Your task to perform on an android device: turn off notifications settings in the gmail app Image 0: 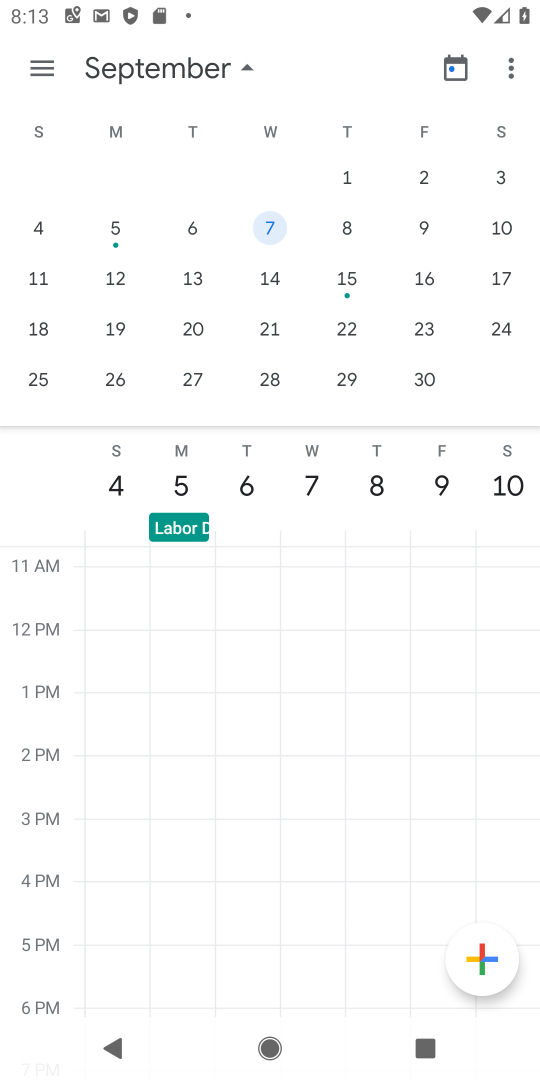
Step 0: press home button
Your task to perform on an android device: turn off notifications settings in the gmail app Image 1: 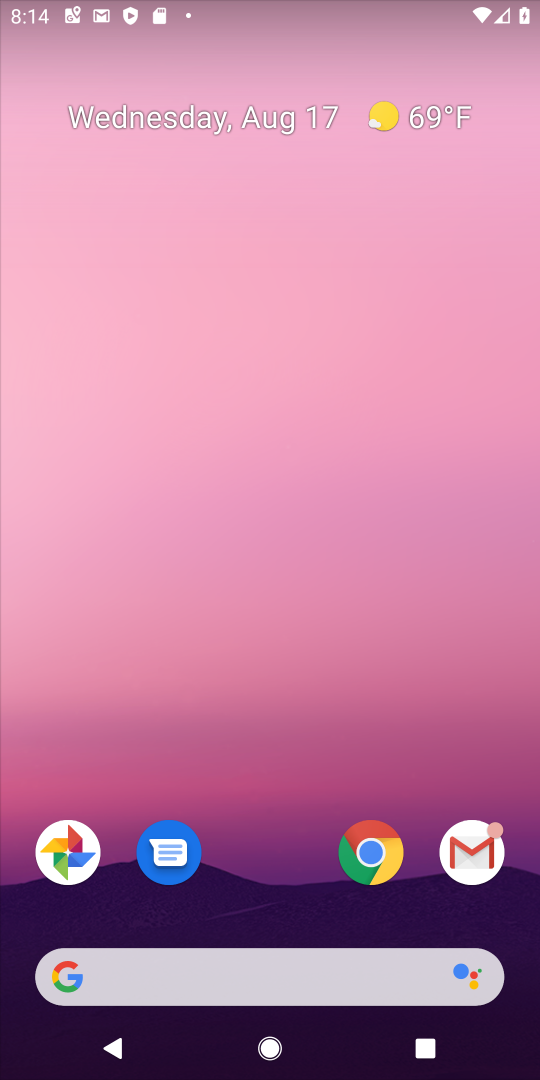
Step 1: click (468, 850)
Your task to perform on an android device: turn off notifications settings in the gmail app Image 2: 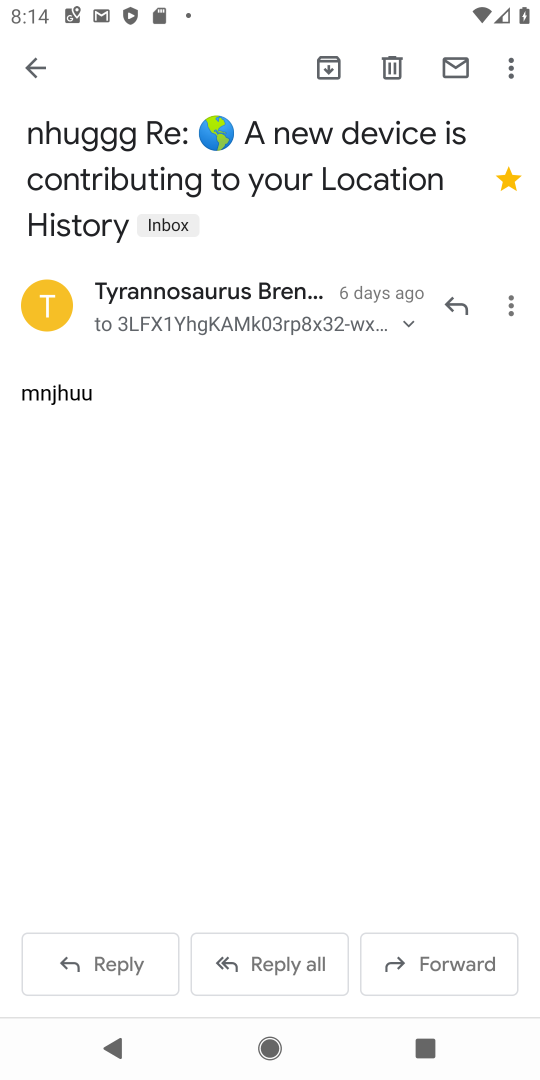
Step 2: click (35, 67)
Your task to perform on an android device: turn off notifications settings in the gmail app Image 3: 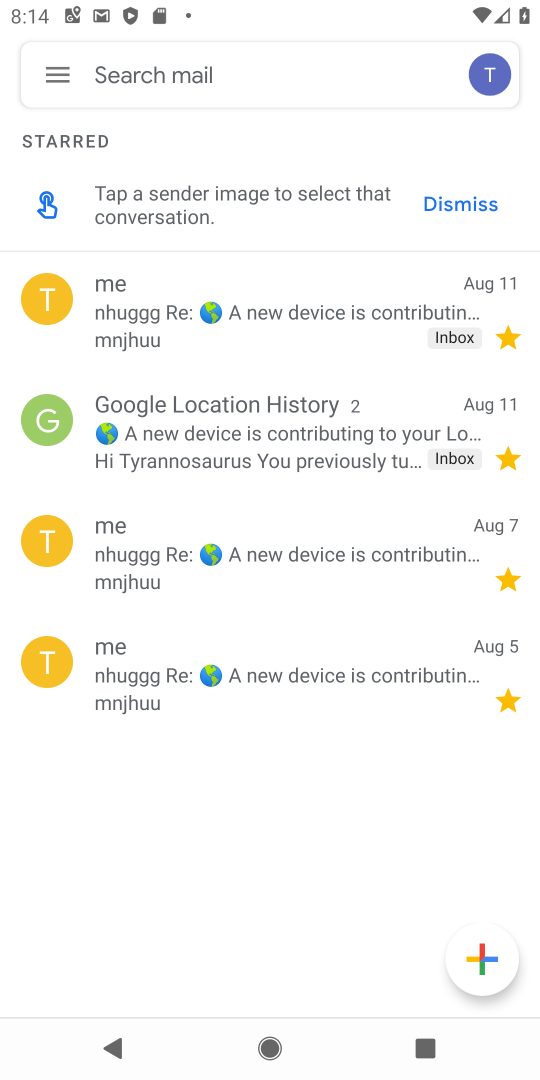
Step 3: click (53, 67)
Your task to perform on an android device: turn off notifications settings in the gmail app Image 4: 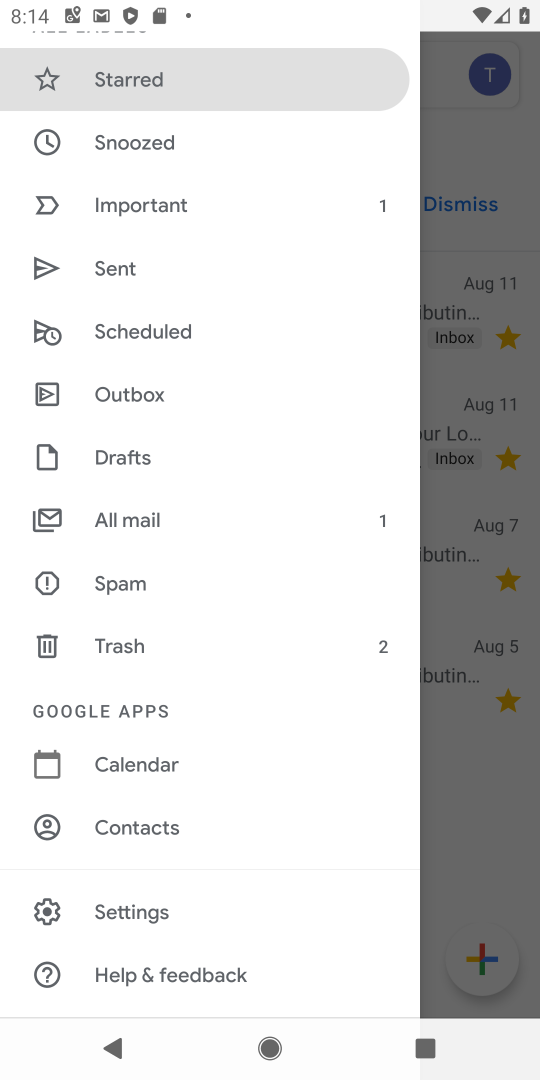
Step 4: click (128, 902)
Your task to perform on an android device: turn off notifications settings in the gmail app Image 5: 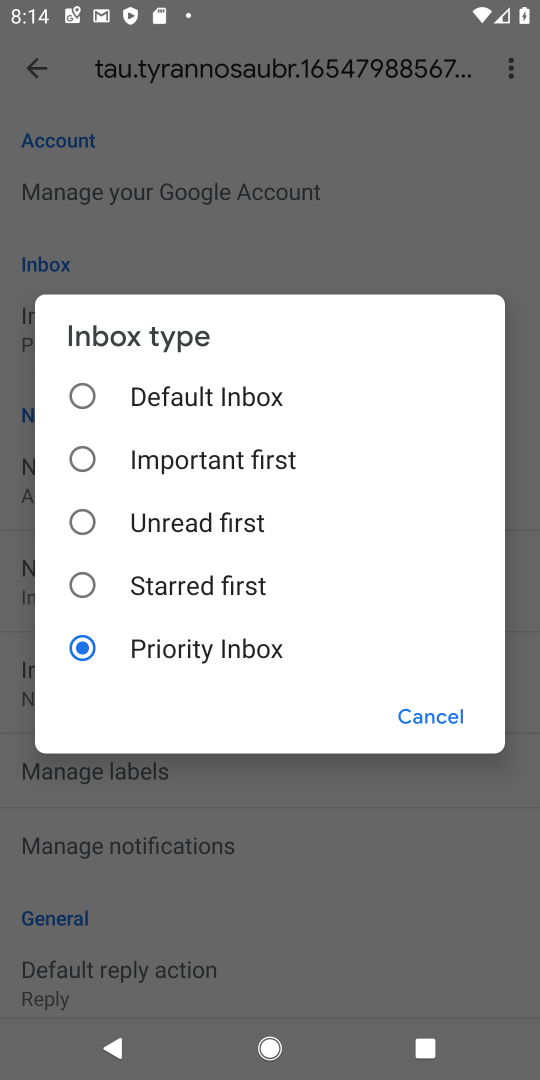
Step 5: click (429, 709)
Your task to perform on an android device: turn off notifications settings in the gmail app Image 6: 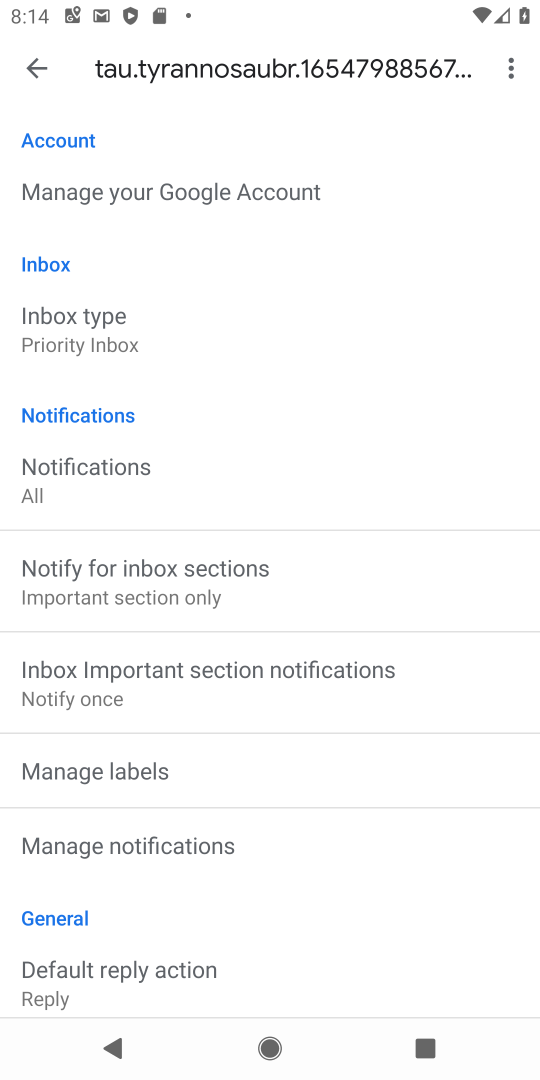
Step 6: click (41, 60)
Your task to perform on an android device: turn off notifications settings in the gmail app Image 7: 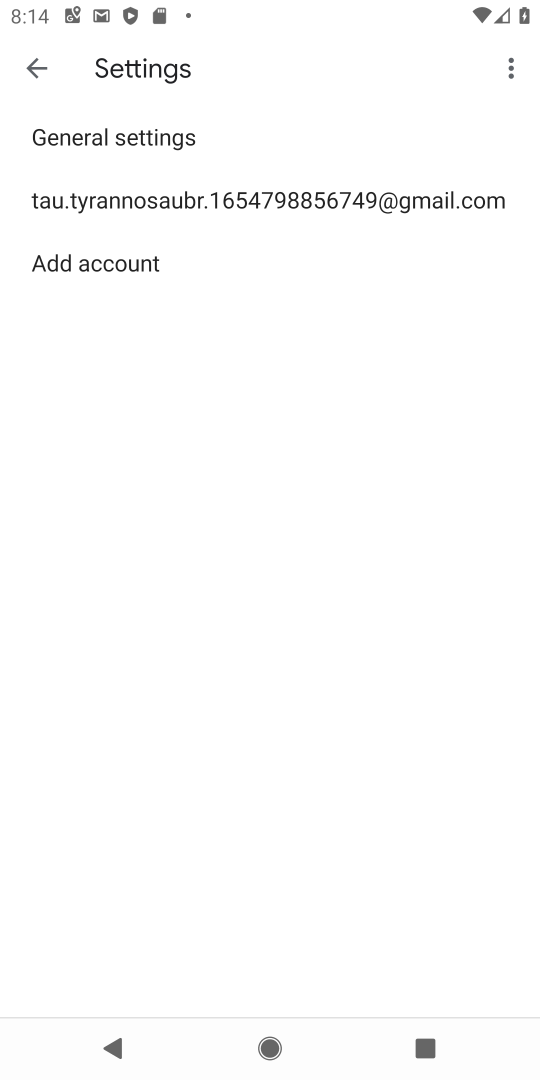
Step 7: click (135, 132)
Your task to perform on an android device: turn off notifications settings in the gmail app Image 8: 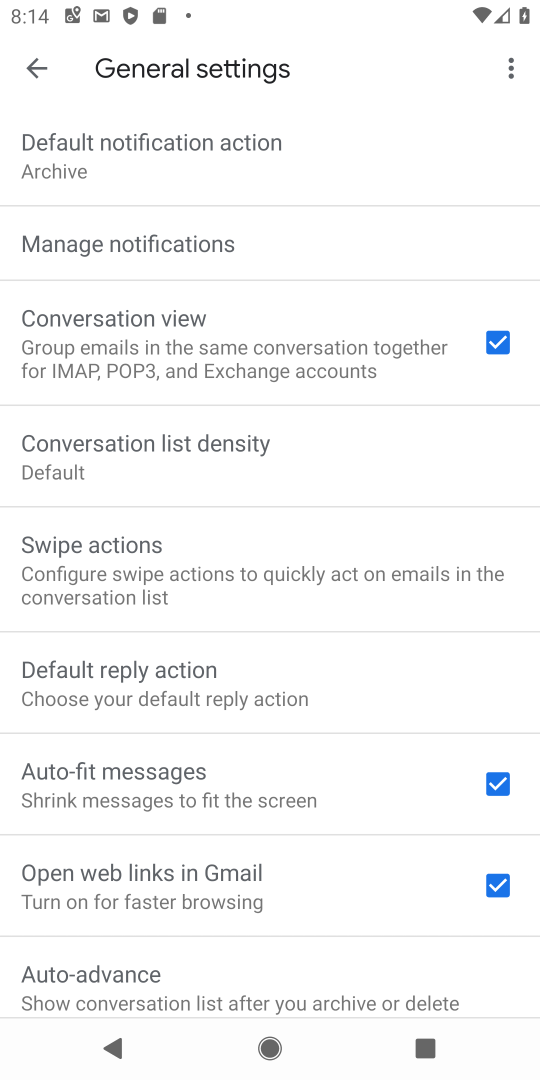
Step 8: click (112, 243)
Your task to perform on an android device: turn off notifications settings in the gmail app Image 9: 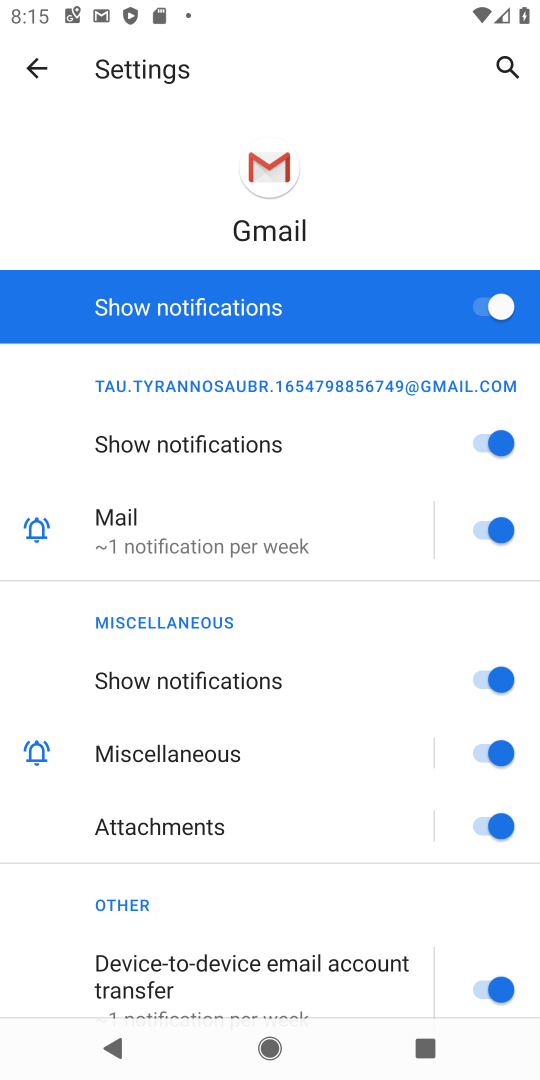
Step 9: click (508, 306)
Your task to perform on an android device: turn off notifications settings in the gmail app Image 10: 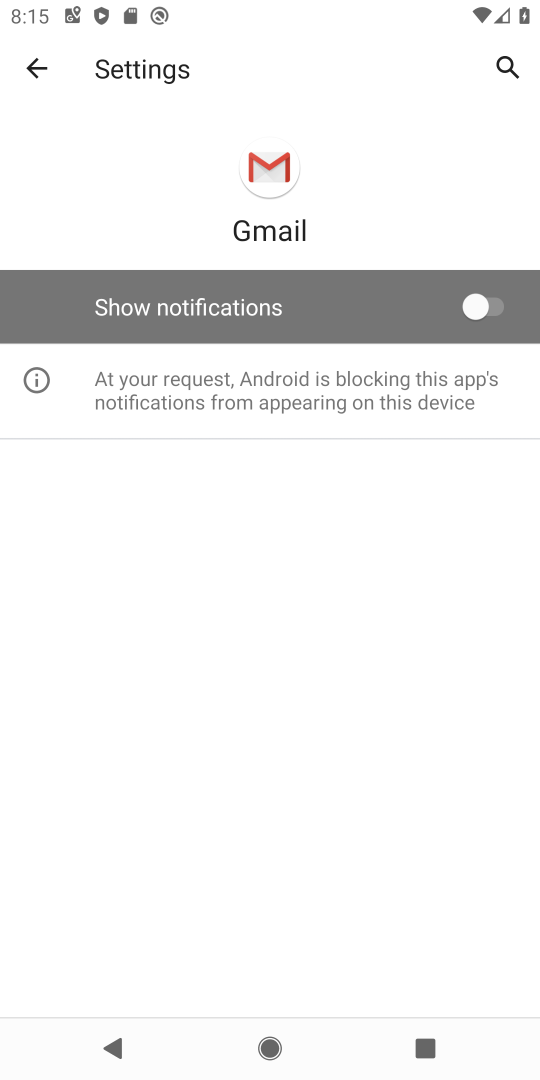
Step 10: task complete